Your task to perform on an android device: Go to ESPN.com Image 0: 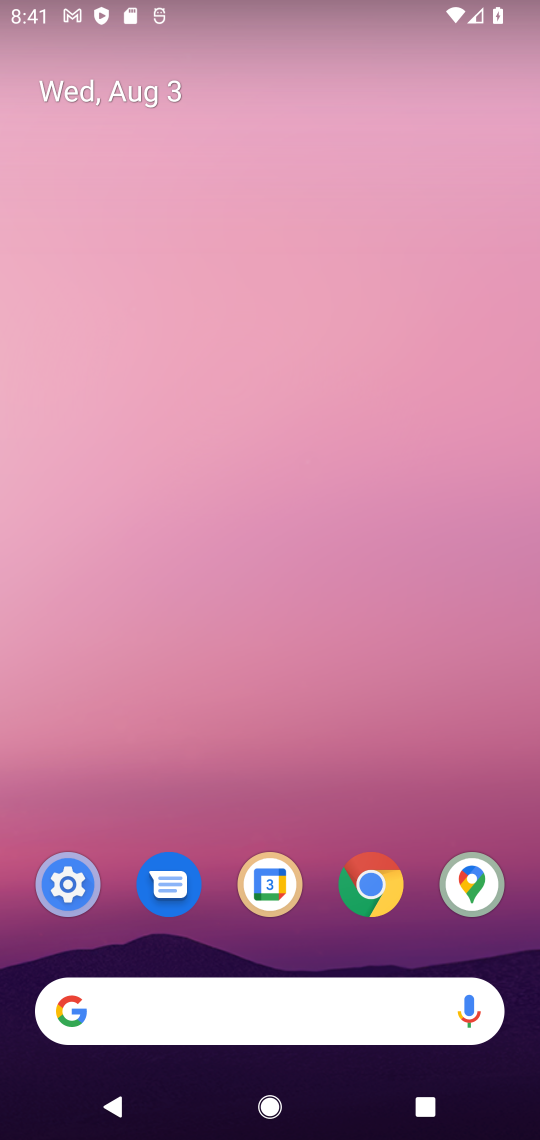
Step 0: click (117, 1001)
Your task to perform on an android device: Go to ESPN.com Image 1: 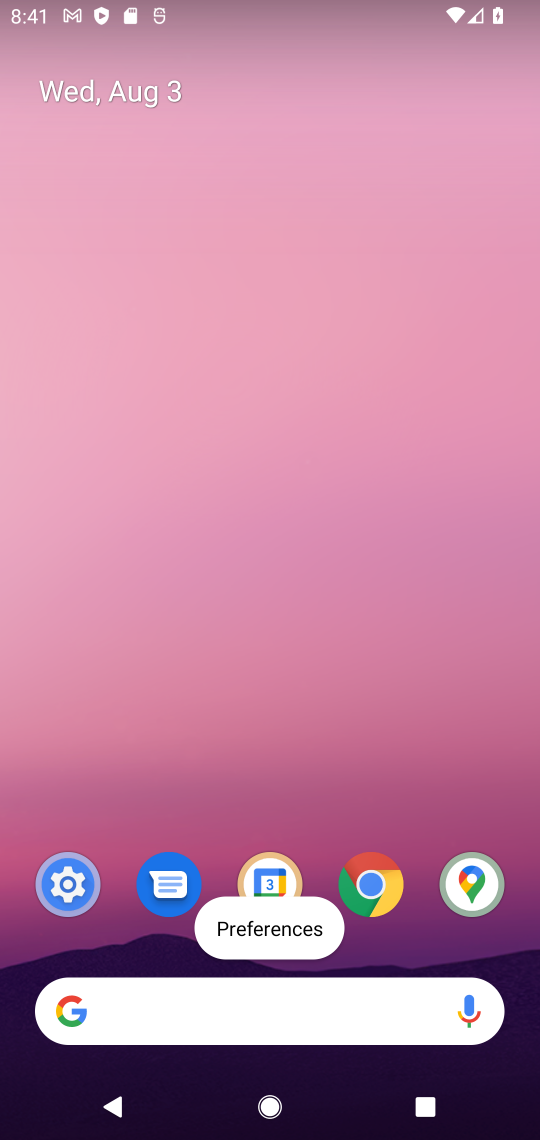
Step 1: click (156, 998)
Your task to perform on an android device: Go to ESPN.com Image 2: 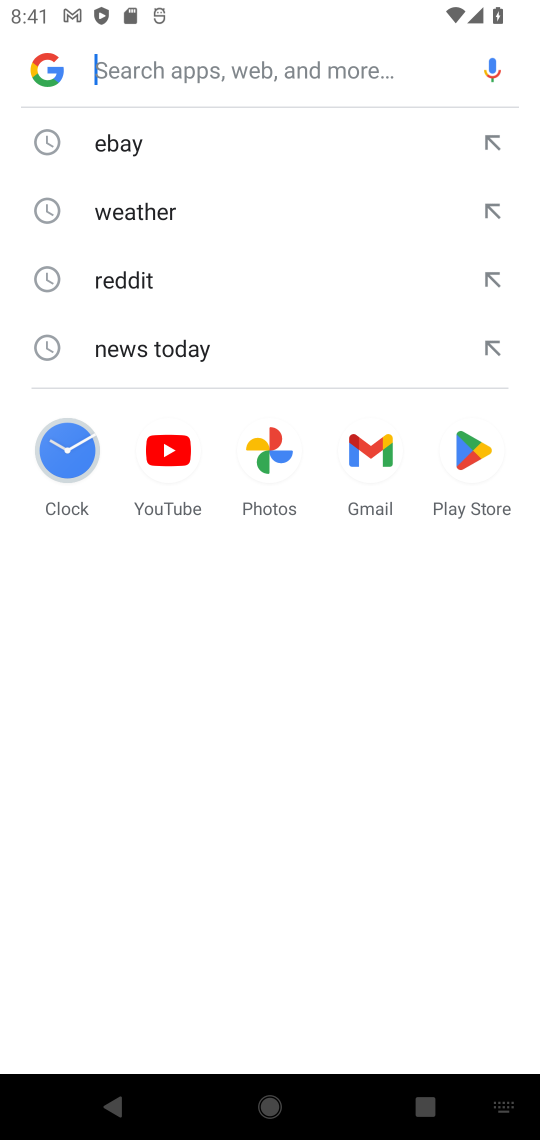
Step 2: type "ESPN.com"
Your task to perform on an android device: Go to ESPN.com Image 3: 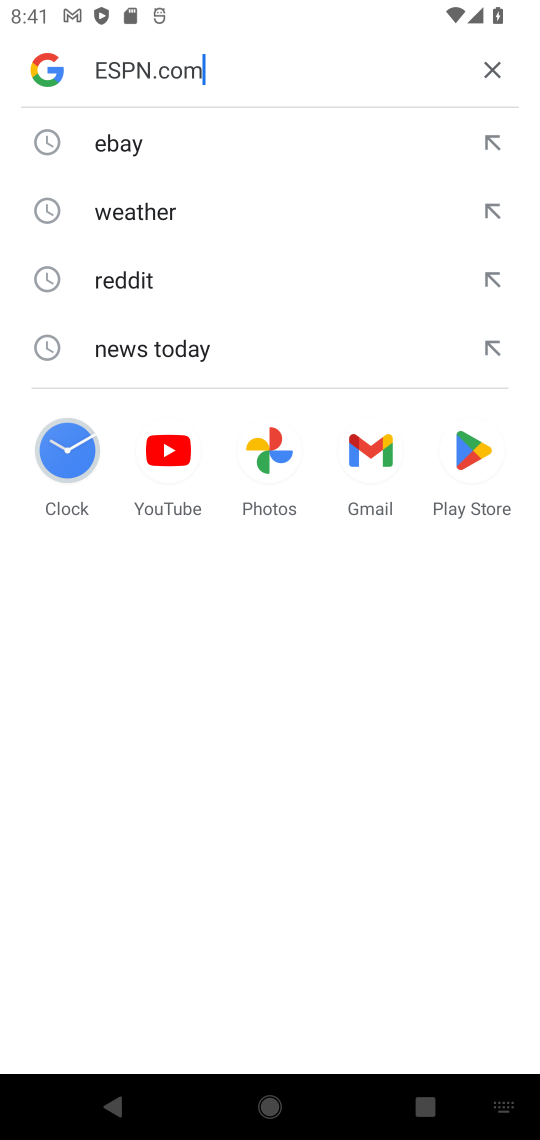
Step 3: type ""
Your task to perform on an android device: Go to ESPN.com Image 4: 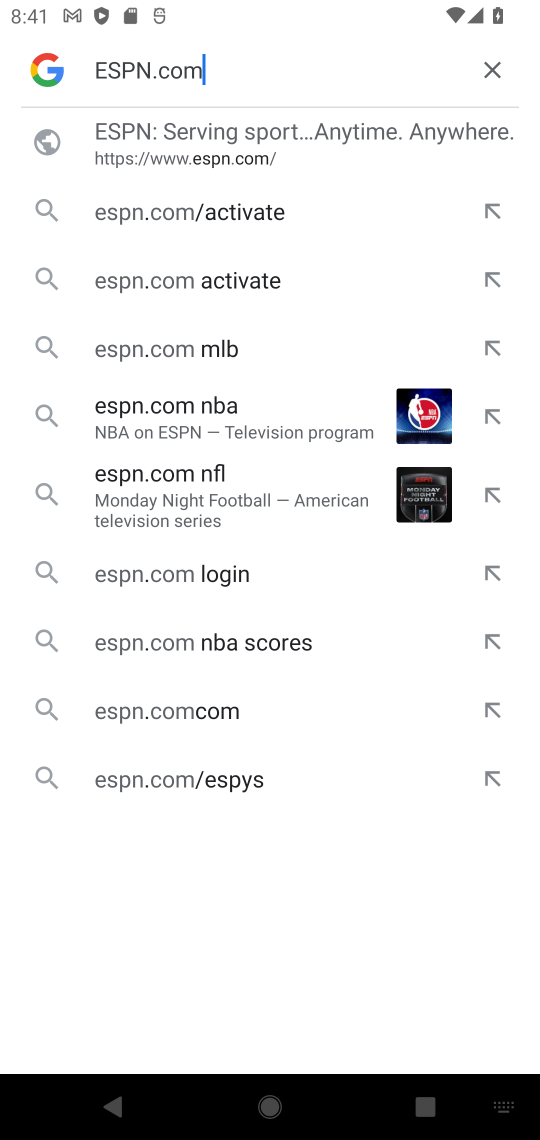
Step 4: type ""
Your task to perform on an android device: Go to ESPN.com Image 5: 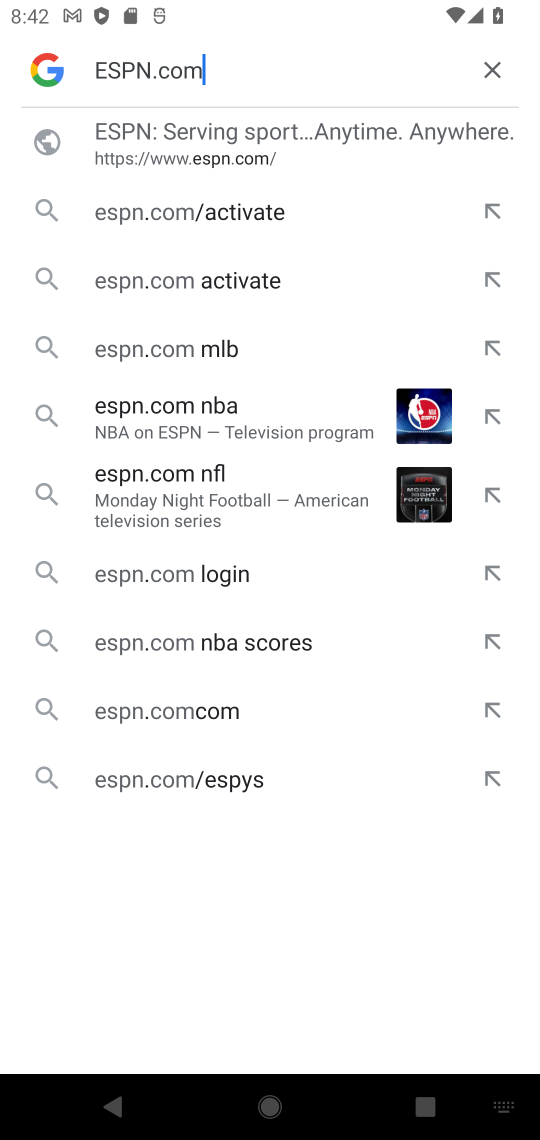
Step 5: task complete